Your task to perform on an android device: turn on airplane mode Image 0: 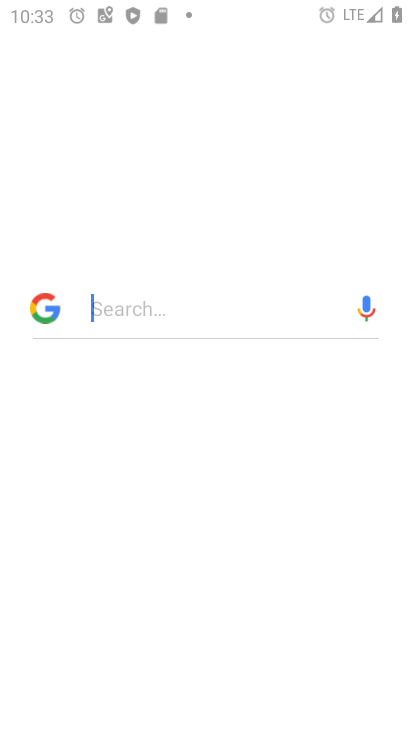
Step 0: drag from (215, 506) to (323, 130)
Your task to perform on an android device: turn on airplane mode Image 1: 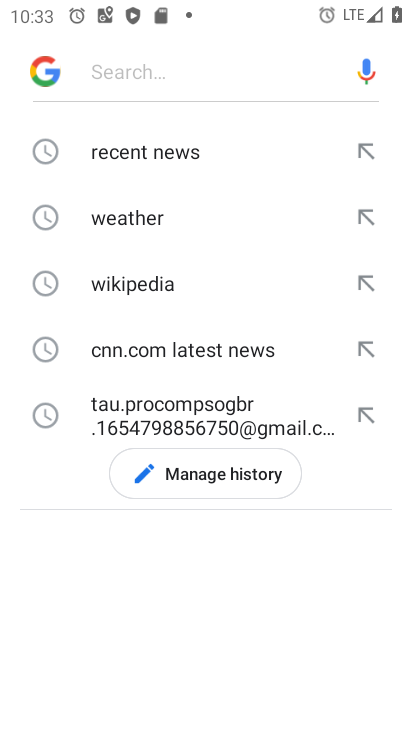
Step 1: press home button
Your task to perform on an android device: turn on airplane mode Image 2: 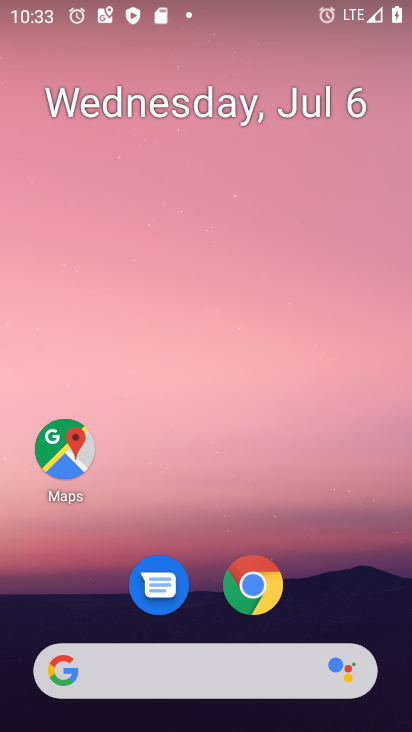
Step 2: drag from (200, 483) to (322, 0)
Your task to perform on an android device: turn on airplane mode Image 3: 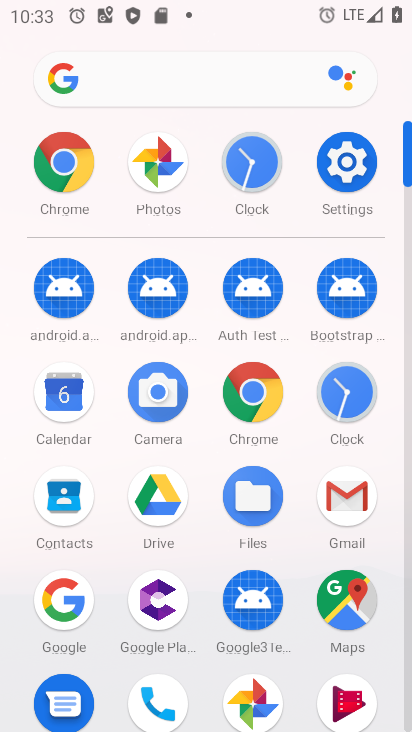
Step 3: click (338, 173)
Your task to perform on an android device: turn on airplane mode Image 4: 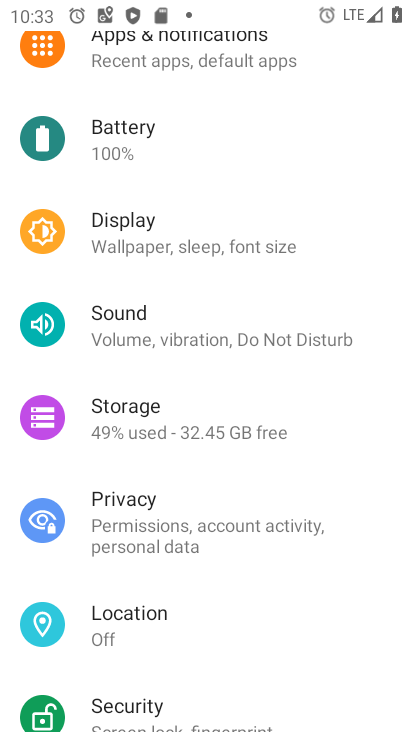
Step 4: drag from (284, 199) to (219, 578)
Your task to perform on an android device: turn on airplane mode Image 5: 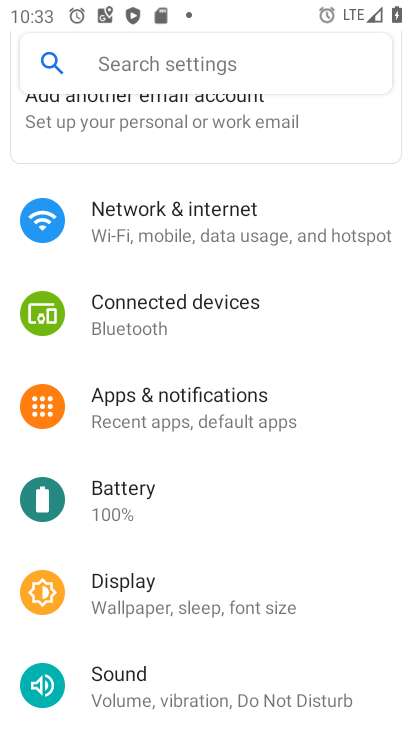
Step 5: click (179, 225)
Your task to perform on an android device: turn on airplane mode Image 6: 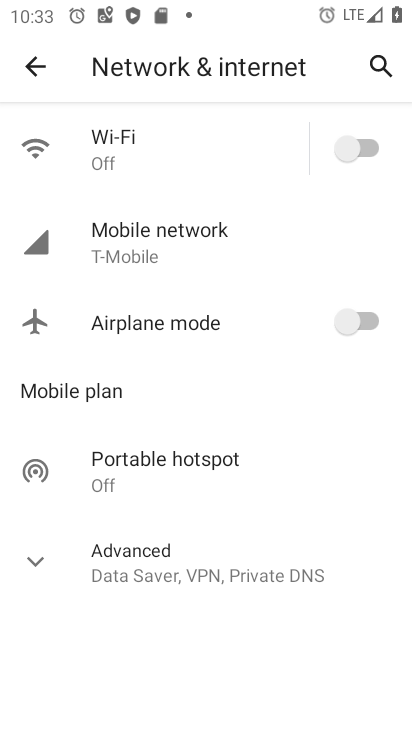
Step 6: click (370, 314)
Your task to perform on an android device: turn on airplane mode Image 7: 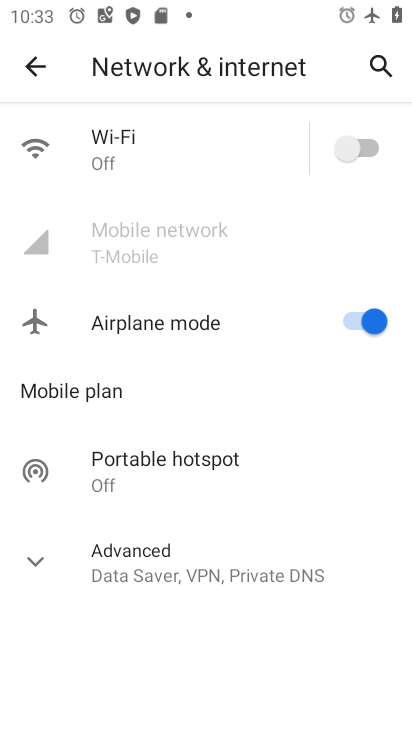
Step 7: task complete